Your task to perform on an android device: delete the emails in spam in the gmail app Image 0: 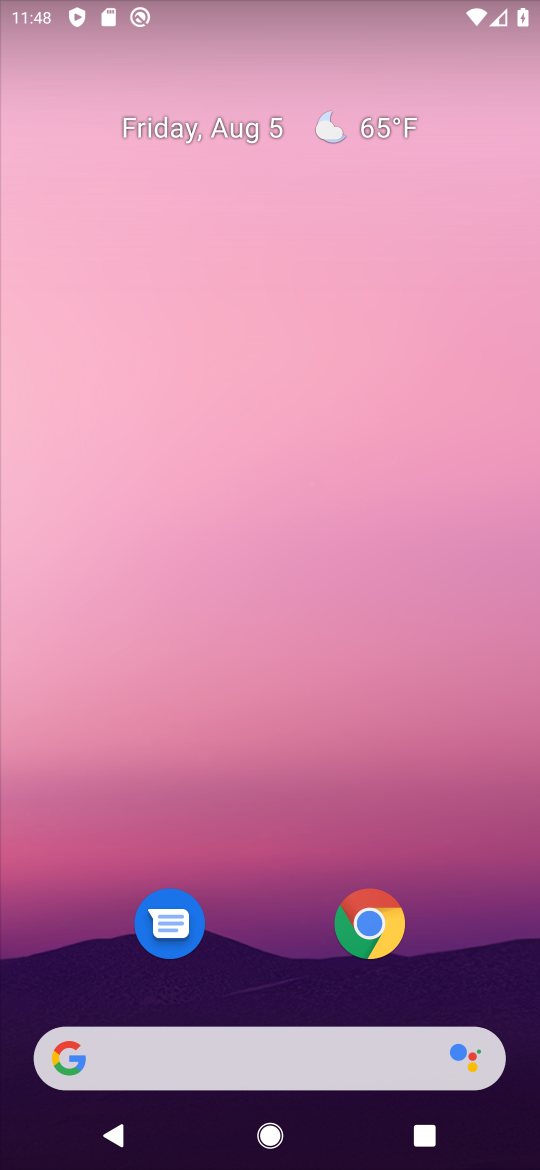
Step 0: drag from (468, 902) to (365, 238)
Your task to perform on an android device: delete the emails in spam in the gmail app Image 1: 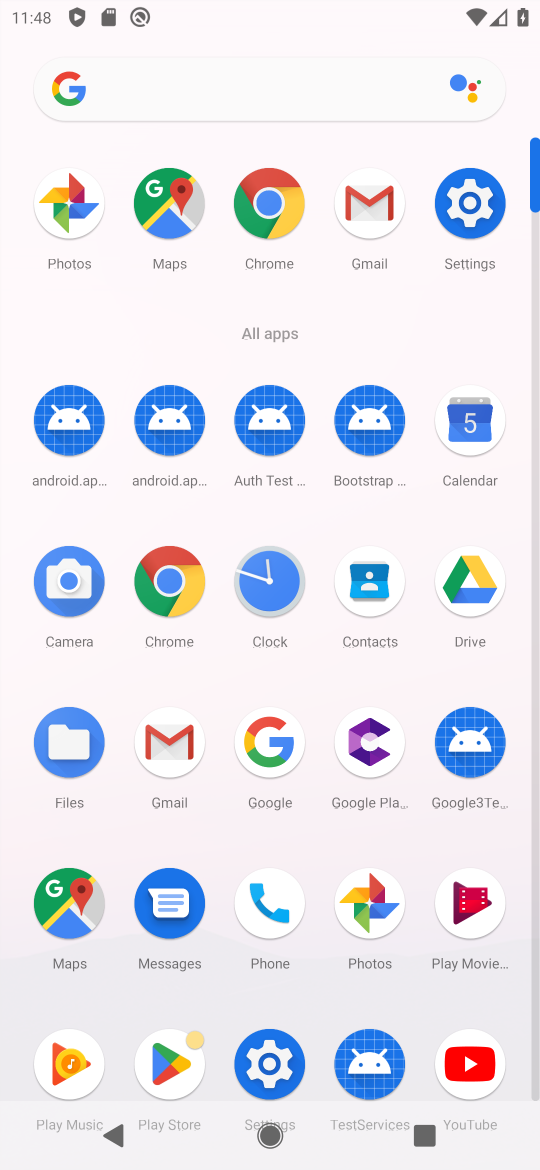
Step 1: click (378, 221)
Your task to perform on an android device: delete the emails in spam in the gmail app Image 2: 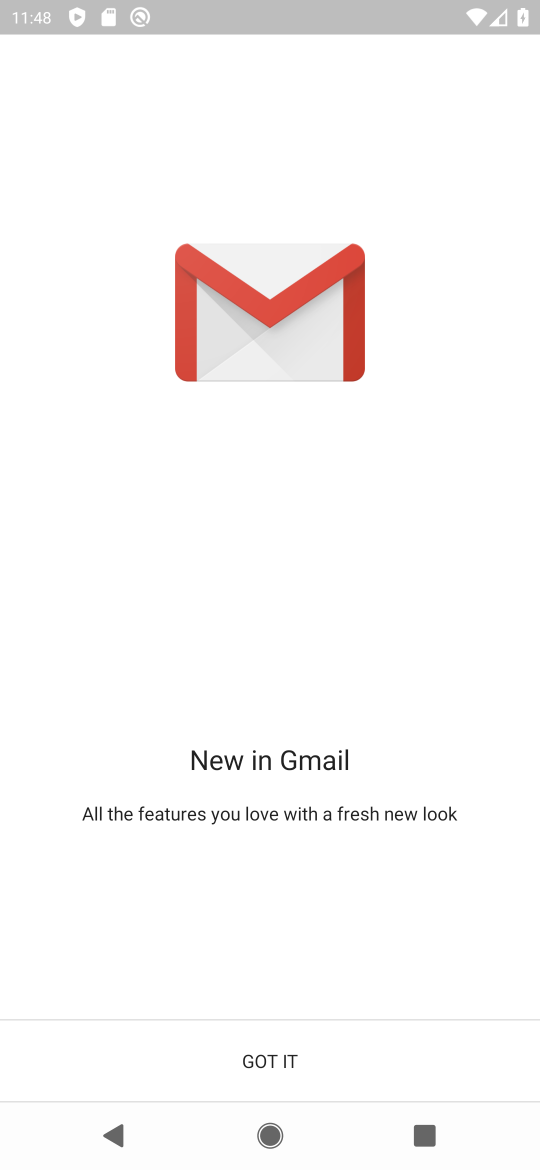
Step 2: click (288, 1067)
Your task to perform on an android device: delete the emails in spam in the gmail app Image 3: 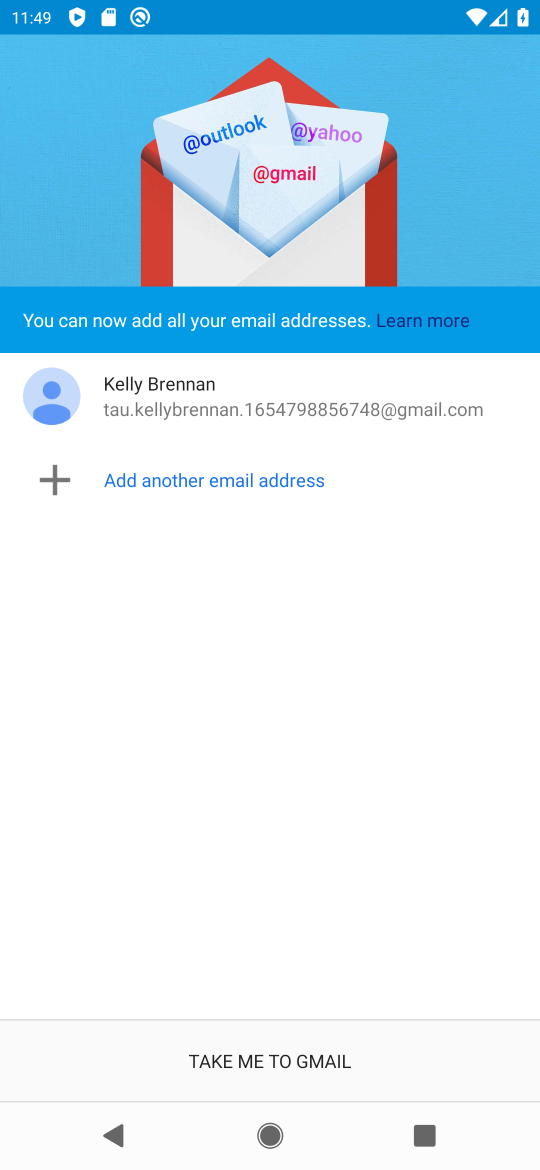
Step 3: click (288, 1067)
Your task to perform on an android device: delete the emails in spam in the gmail app Image 4: 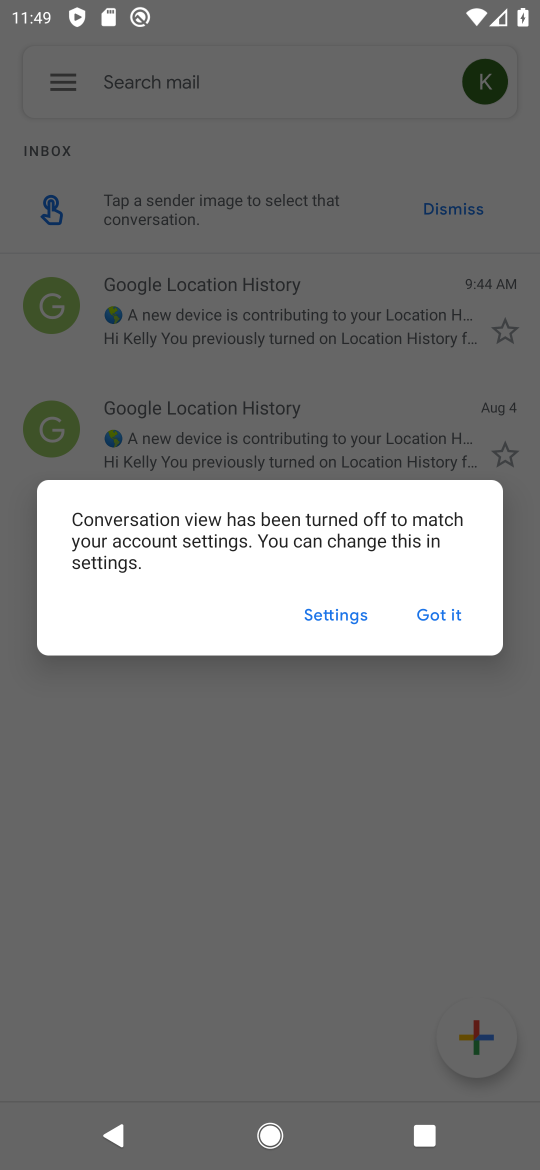
Step 4: click (451, 625)
Your task to perform on an android device: delete the emails in spam in the gmail app Image 5: 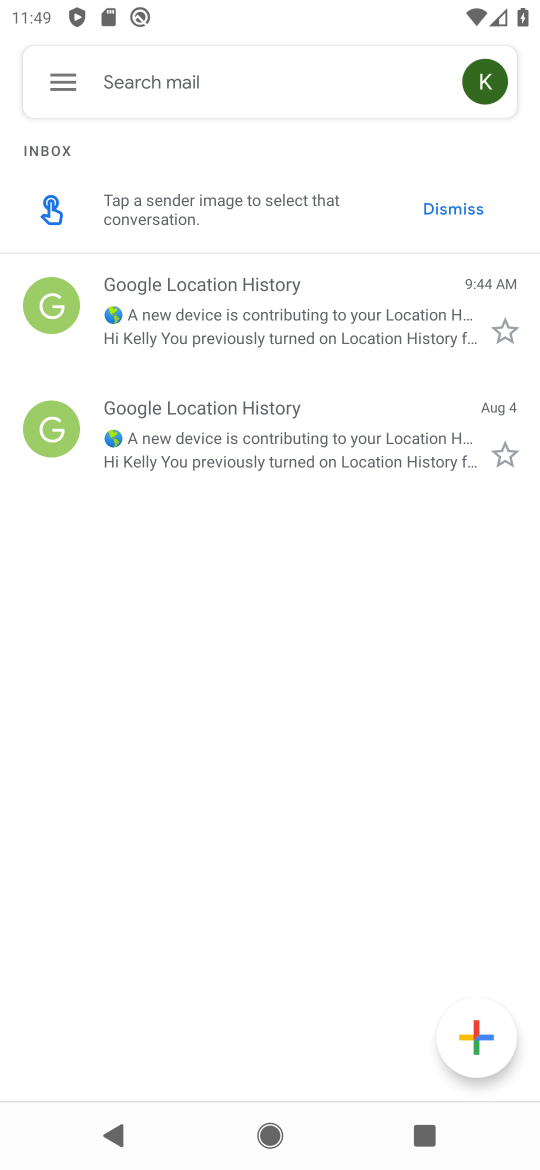
Step 5: click (56, 75)
Your task to perform on an android device: delete the emails in spam in the gmail app Image 6: 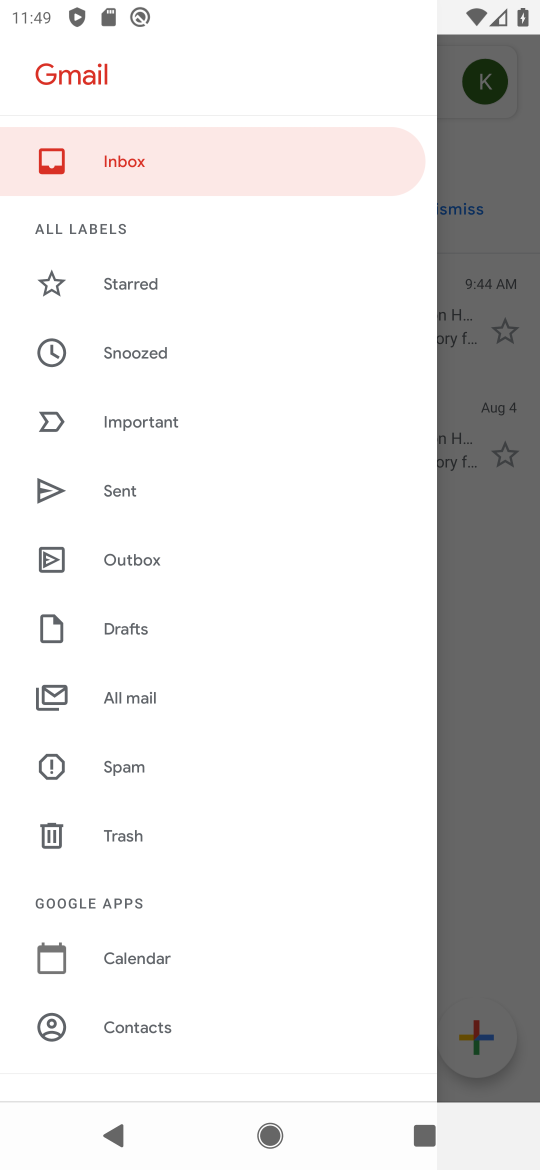
Step 6: click (129, 763)
Your task to perform on an android device: delete the emails in spam in the gmail app Image 7: 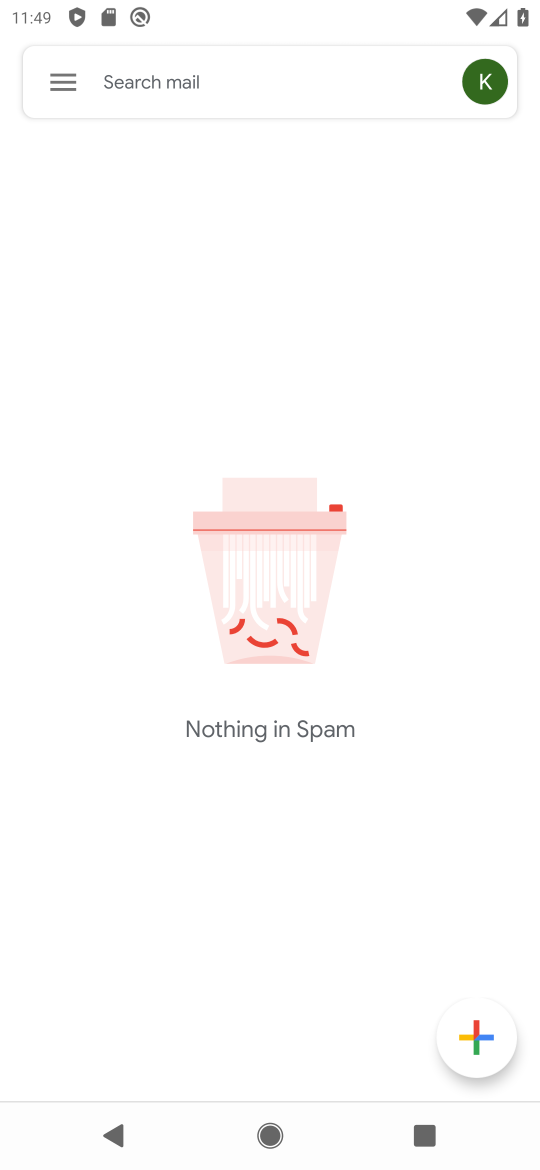
Step 7: task complete